Your task to perform on an android device: turn off picture-in-picture Image 0: 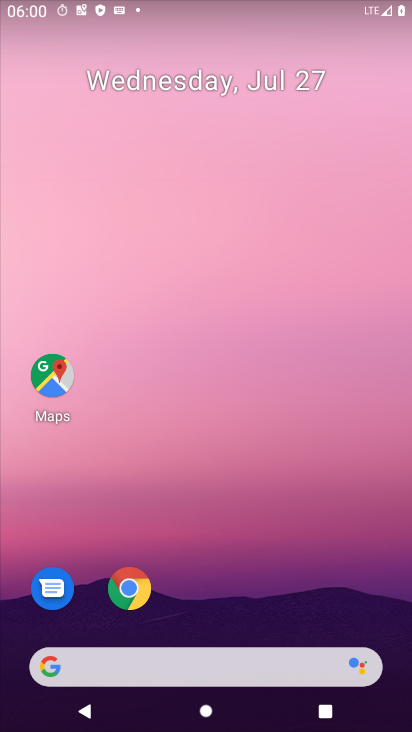
Step 0: drag from (316, 672) to (275, 35)
Your task to perform on an android device: turn off picture-in-picture Image 1: 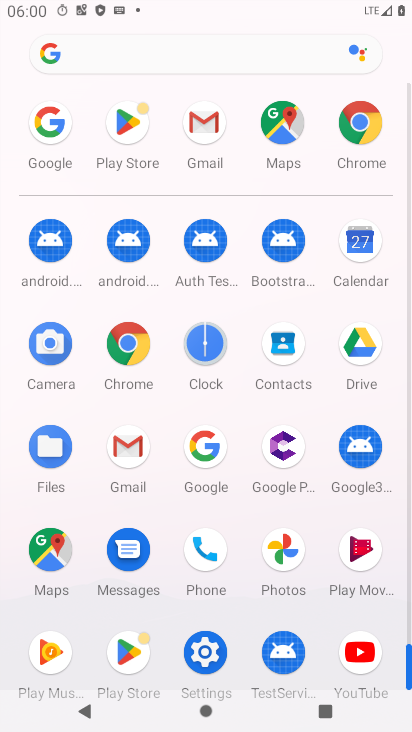
Step 1: click (205, 672)
Your task to perform on an android device: turn off picture-in-picture Image 2: 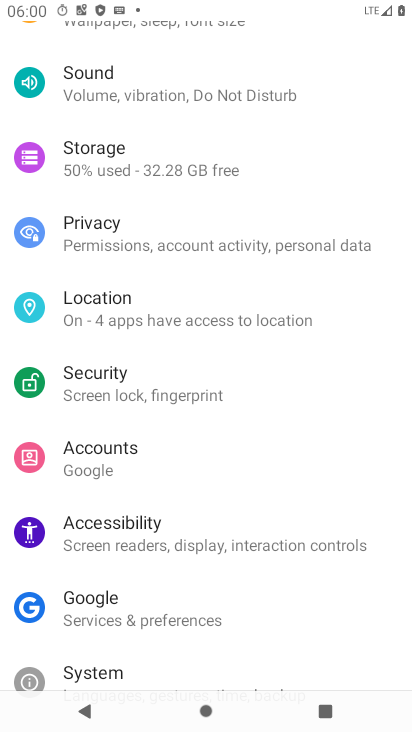
Step 2: drag from (107, 188) to (153, 649)
Your task to perform on an android device: turn off picture-in-picture Image 3: 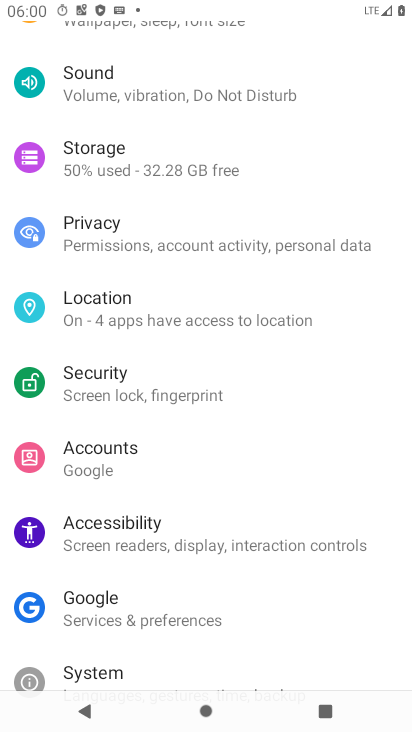
Step 3: drag from (177, 207) to (187, 660)
Your task to perform on an android device: turn off picture-in-picture Image 4: 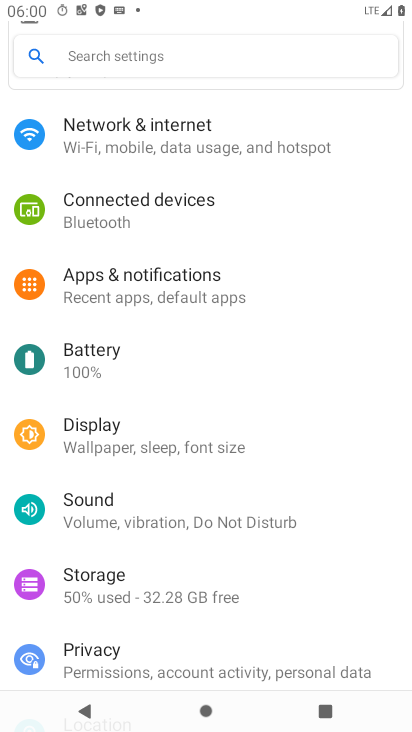
Step 4: click (157, 282)
Your task to perform on an android device: turn off picture-in-picture Image 5: 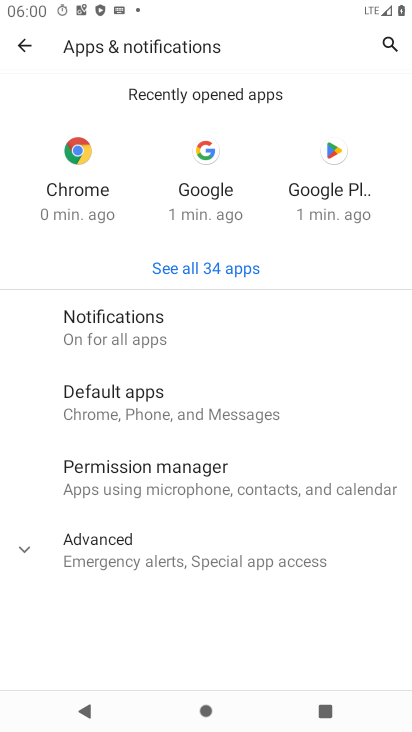
Step 5: click (165, 550)
Your task to perform on an android device: turn off picture-in-picture Image 6: 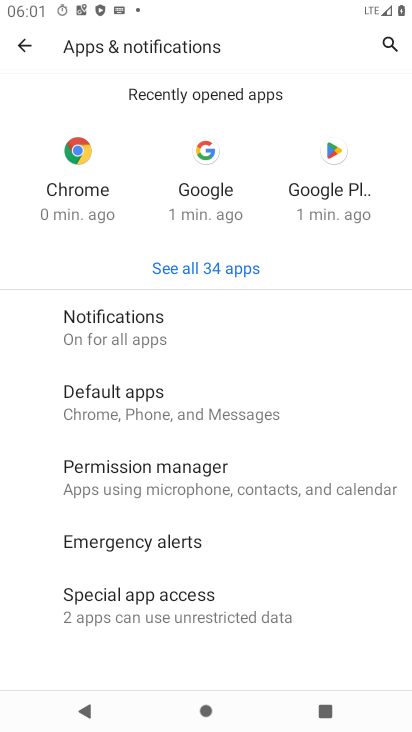
Step 6: click (163, 606)
Your task to perform on an android device: turn off picture-in-picture Image 7: 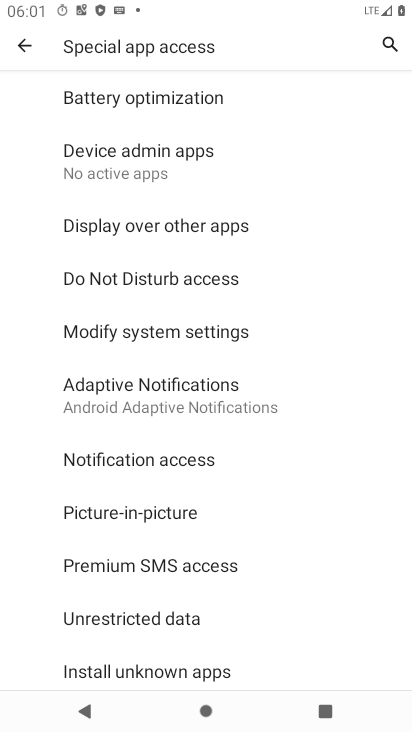
Step 7: click (170, 516)
Your task to perform on an android device: turn off picture-in-picture Image 8: 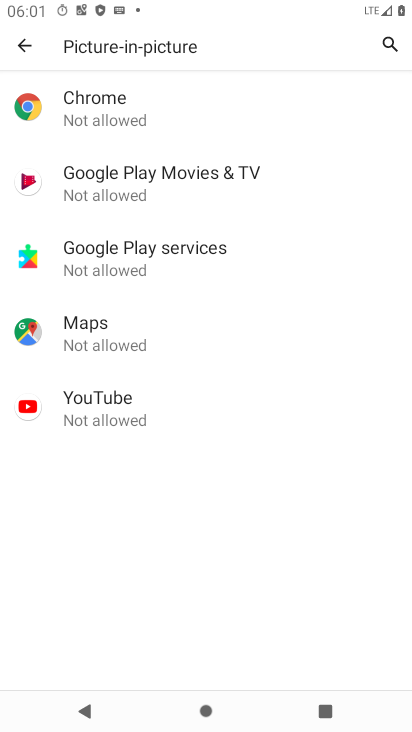
Step 8: task complete